Your task to perform on an android device: turn on javascript in the chrome app Image 0: 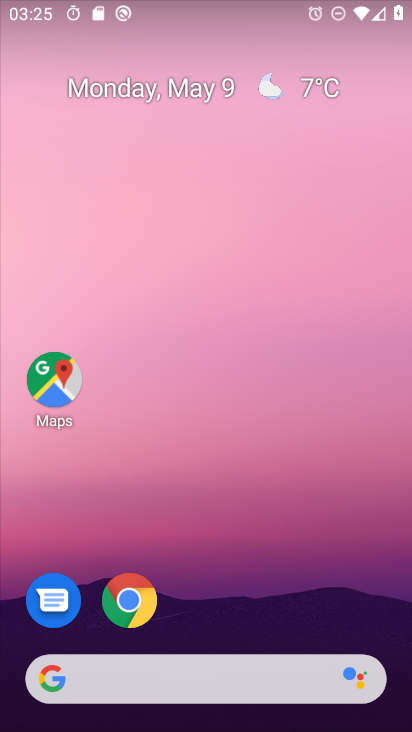
Step 0: click (125, 594)
Your task to perform on an android device: turn on javascript in the chrome app Image 1: 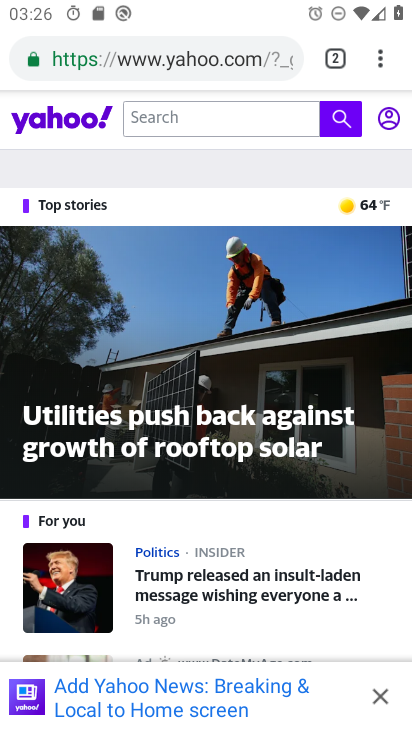
Step 1: click (387, 64)
Your task to perform on an android device: turn on javascript in the chrome app Image 2: 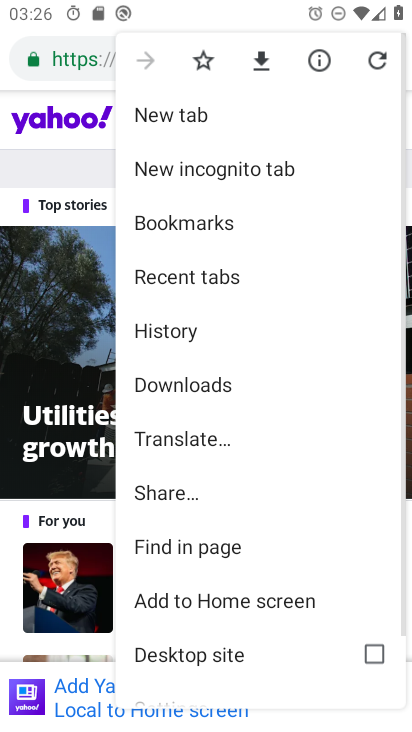
Step 2: drag from (232, 567) to (242, 186)
Your task to perform on an android device: turn on javascript in the chrome app Image 3: 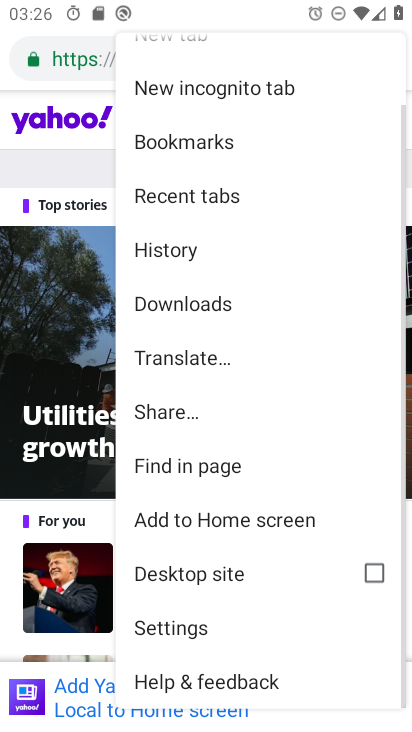
Step 3: click (202, 631)
Your task to perform on an android device: turn on javascript in the chrome app Image 4: 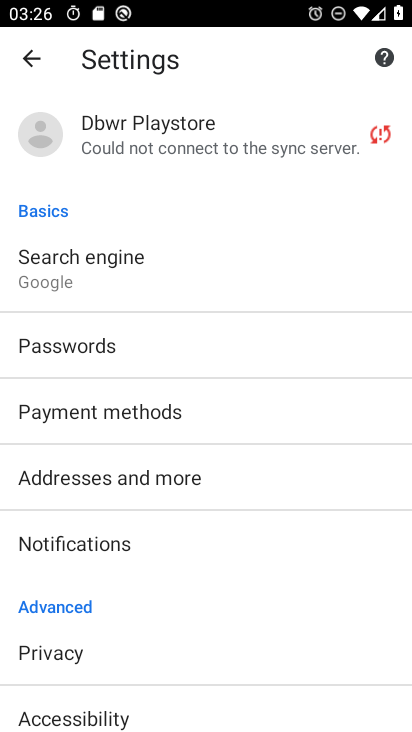
Step 4: drag from (77, 605) to (112, 240)
Your task to perform on an android device: turn on javascript in the chrome app Image 5: 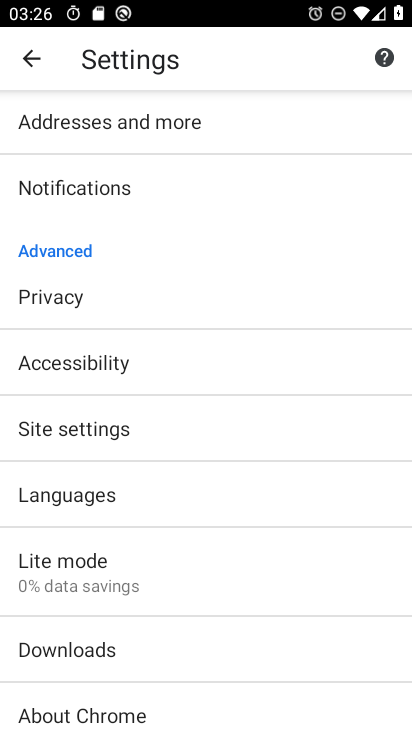
Step 5: click (72, 440)
Your task to perform on an android device: turn on javascript in the chrome app Image 6: 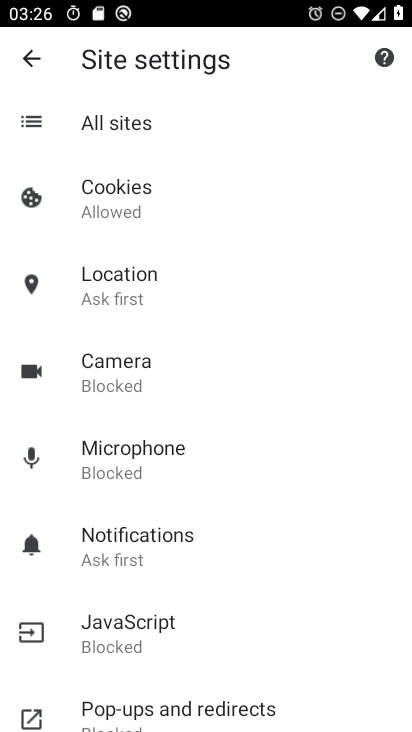
Step 6: click (128, 623)
Your task to perform on an android device: turn on javascript in the chrome app Image 7: 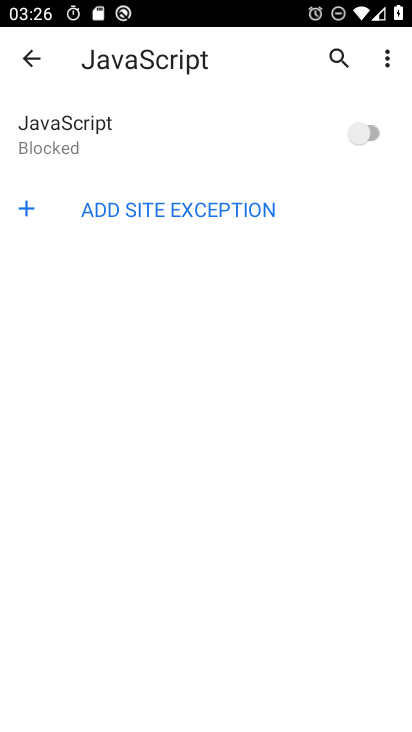
Step 7: click (387, 129)
Your task to perform on an android device: turn on javascript in the chrome app Image 8: 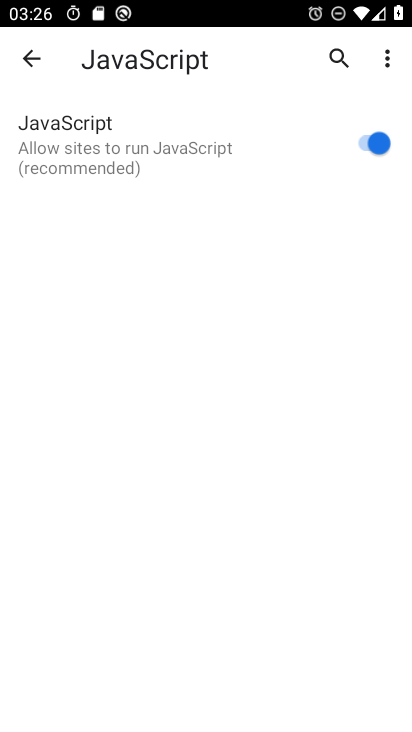
Step 8: task complete